Your task to perform on an android device: install app "Google Play services" Image 0: 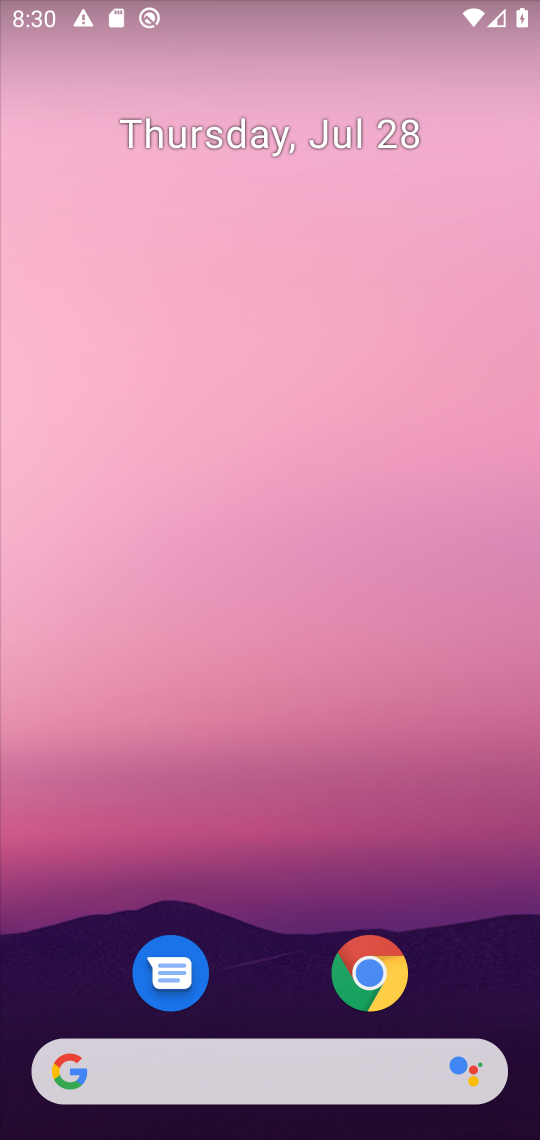
Step 0: drag from (246, 1041) to (376, 222)
Your task to perform on an android device: install app "Google Play services" Image 1: 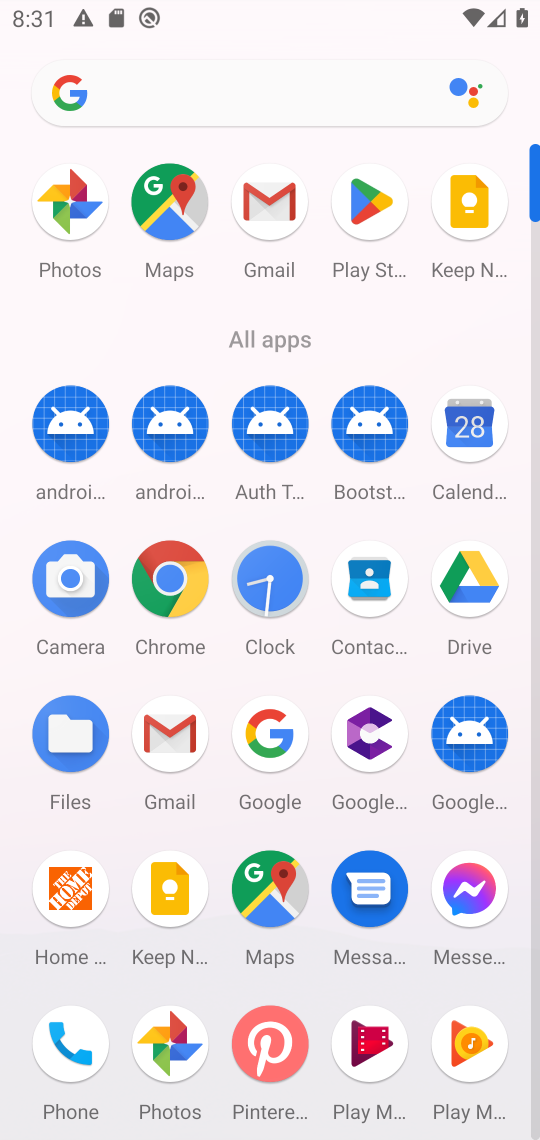
Step 1: click (375, 226)
Your task to perform on an android device: install app "Google Play services" Image 2: 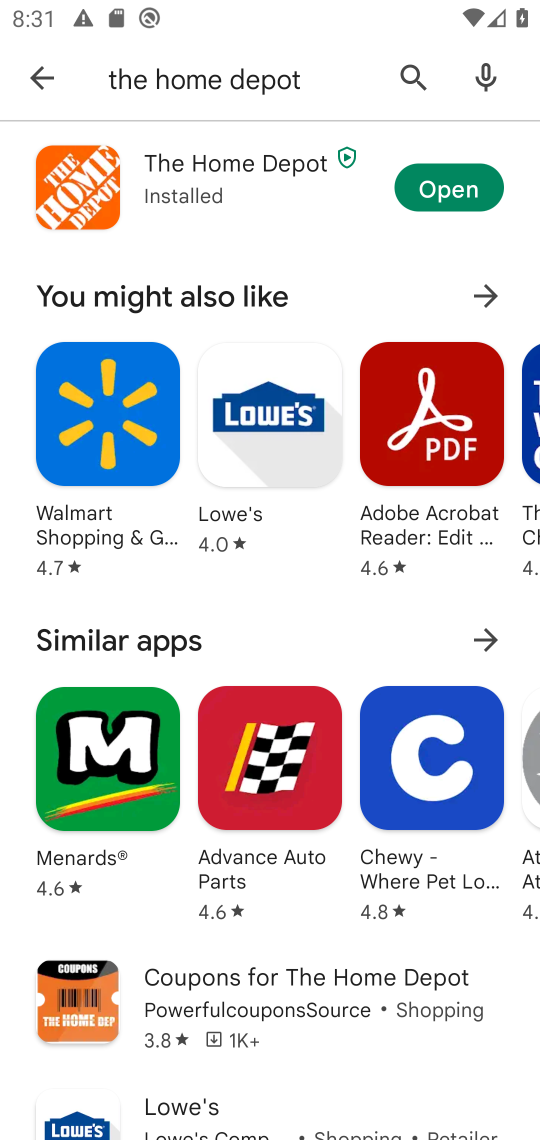
Step 2: click (42, 85)
Your task to perform on an android device: install app "Google Play services" Image 3: 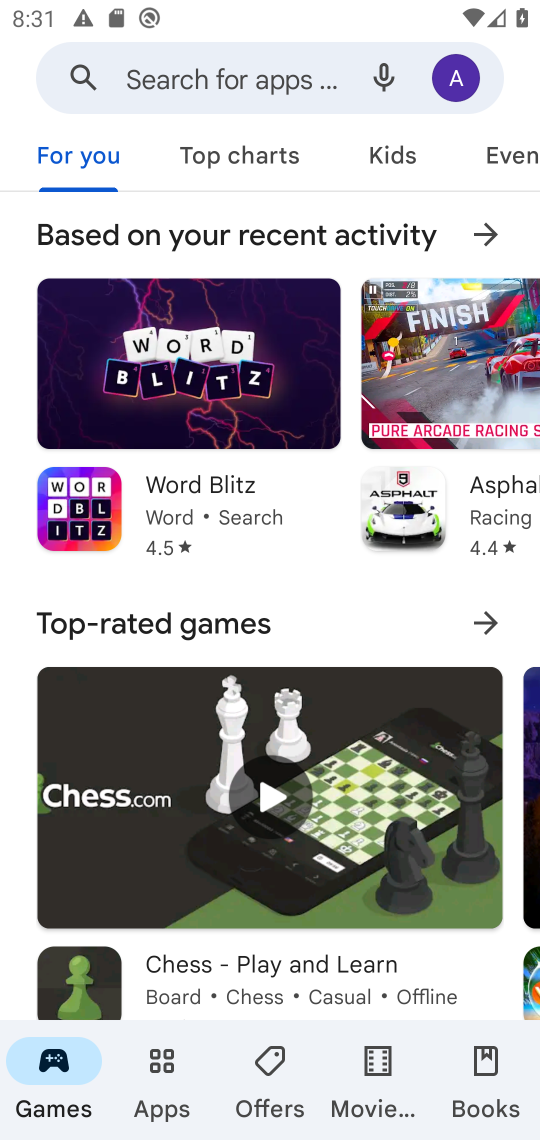
Step 3: click (178, 86)
Your task to perform on an android device: install app "Google Play services" Image 4: 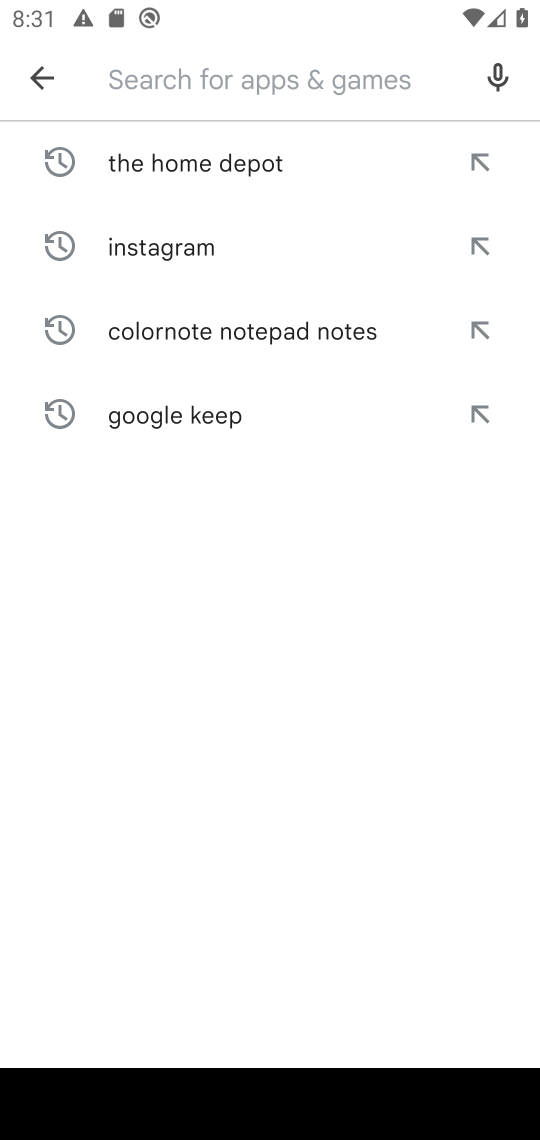
Step 4: type "Google Play services"
Your task to perform on an android device: install app "Google Play services" Image 5: 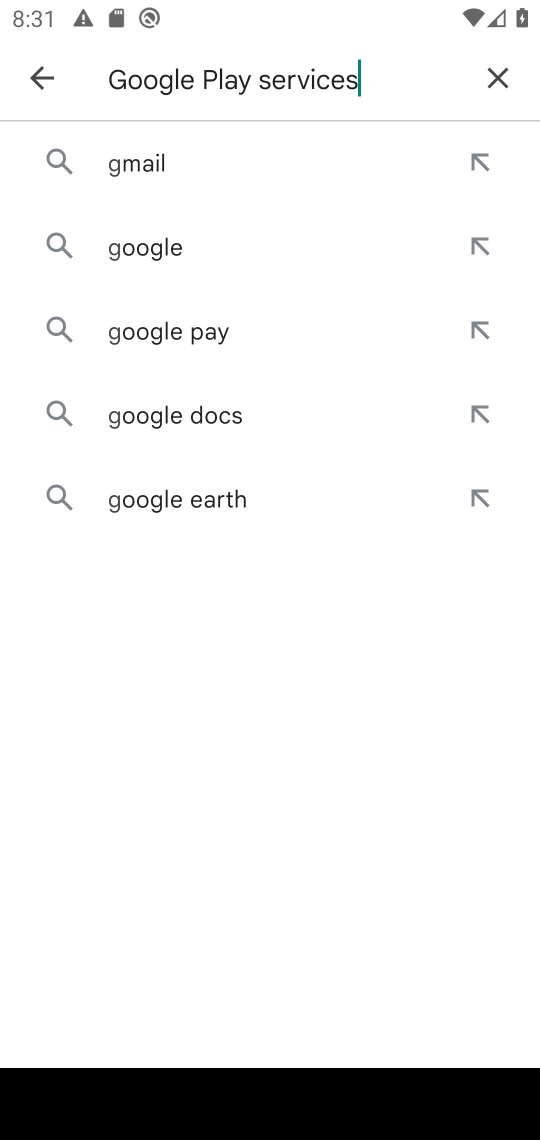
Step 5: type ""
Your task to perform on an android device: install app "Google Play services" Image 6: 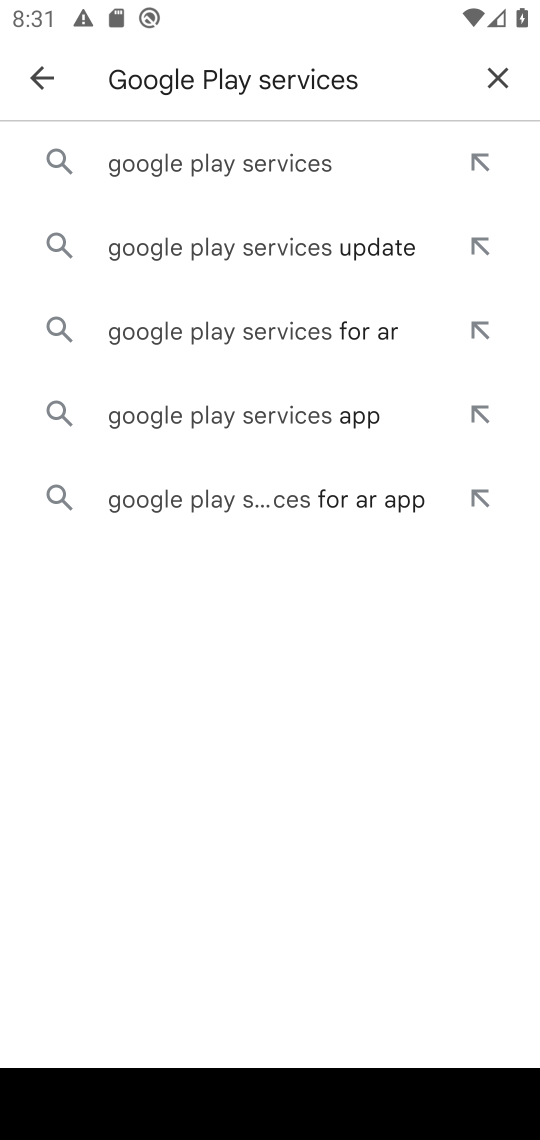
Step 6: click (216, 168)
Your task to perform on an android device: install app "Google Play services" Image 7: 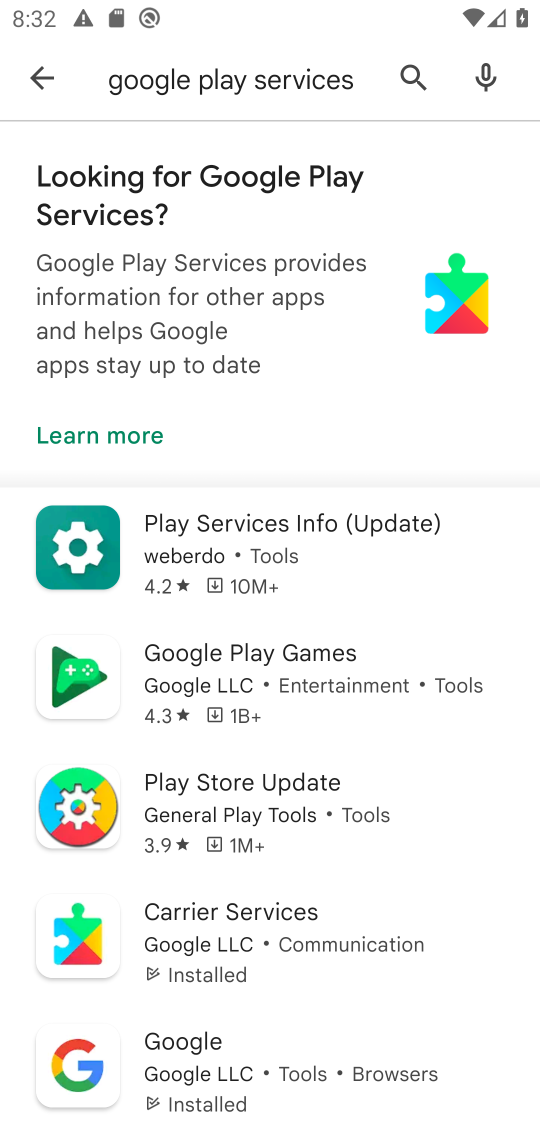
Step 7: click (470, 306)
Your task to perform on an android device: install app "Google Play services" Image 8: 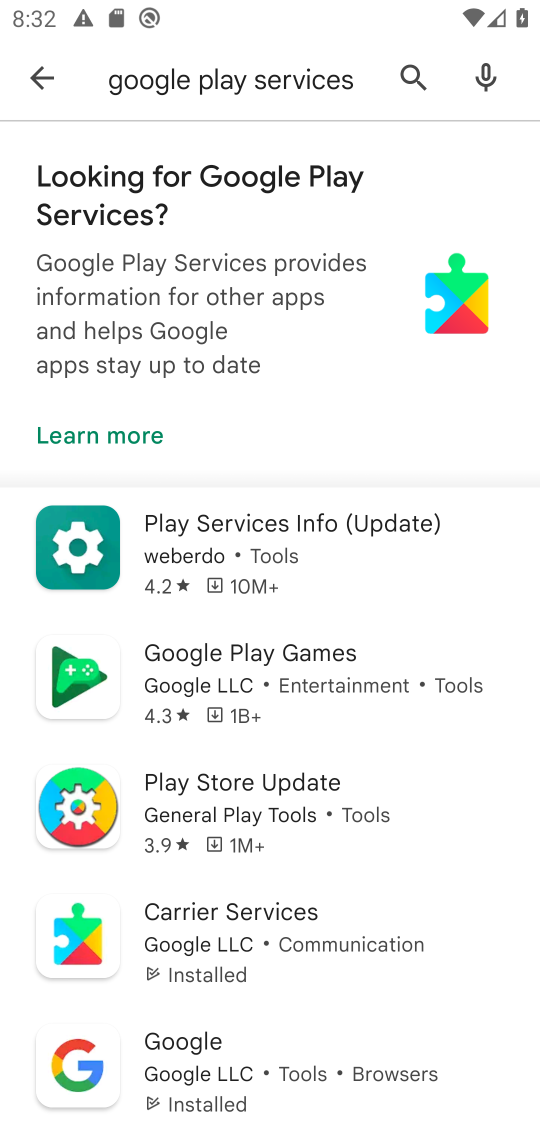
Step 8: click (359, 321)
Your task to perform on an android device: install app "Google Play services" Image 9: 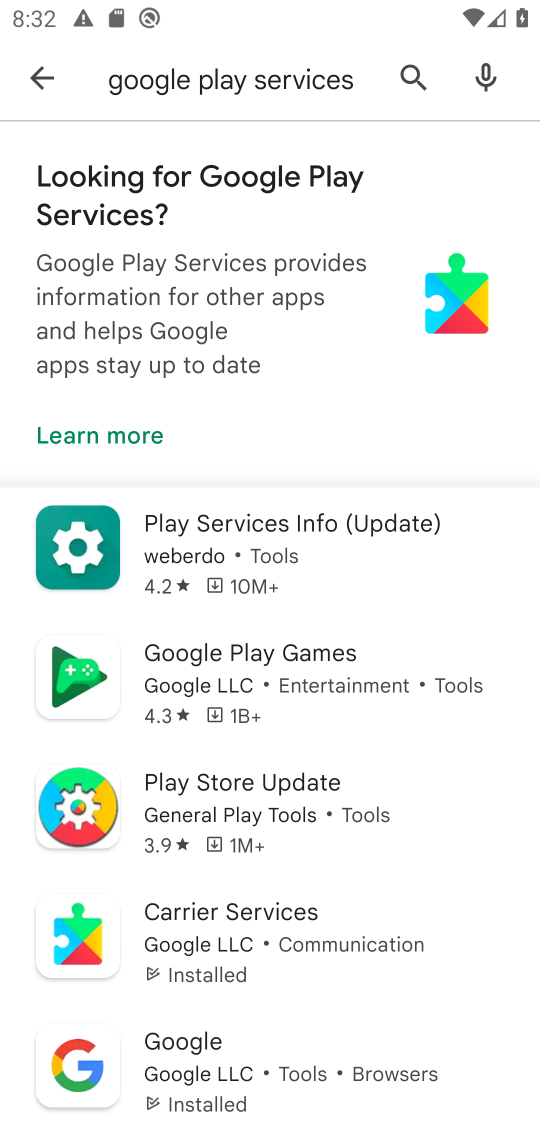
Step 9: task complete